Your task to perform on an android device: Open wifi settings Image 0: 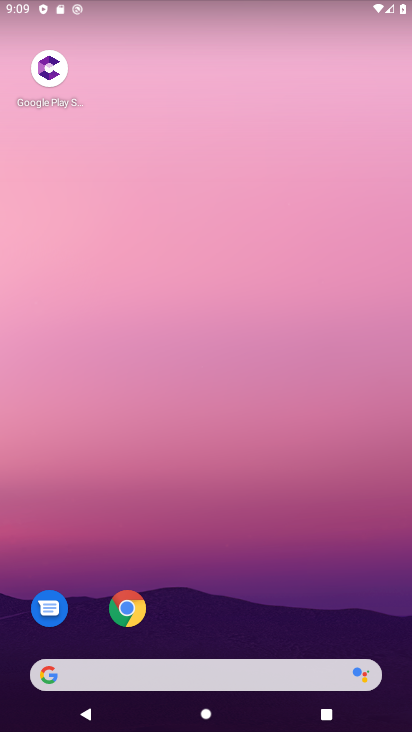
Step 0: drag from (217, 447) to (202, 113)
Your task to perform on an android device: Open wifi settings Image 1: 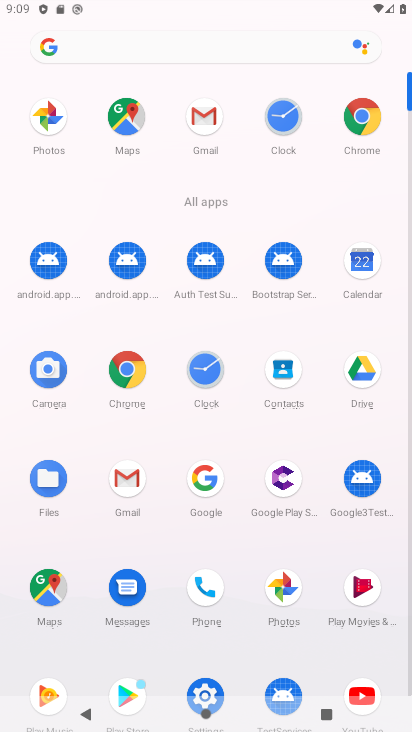
Step 1: click (205, 688)
Your task to perform on an android device: Open wifi settings Image 2: 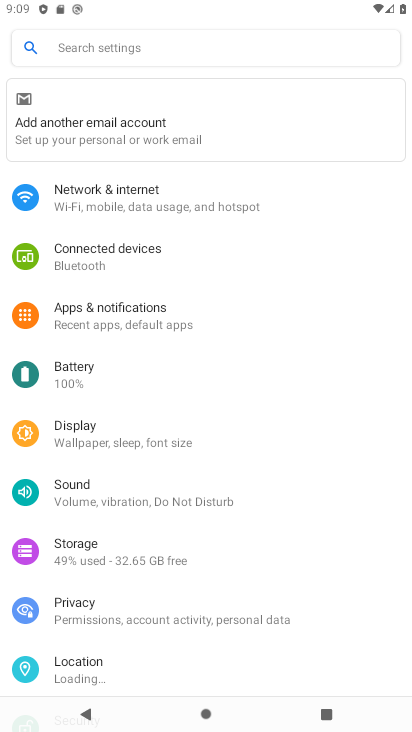
Step 2: click (148, 109)
Your task to perform on an android device: Open wifi settings Image 3: 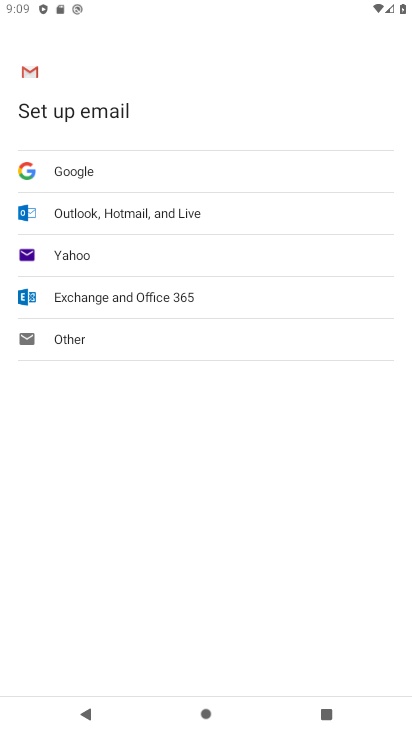
Step 3: press back button
Your task to perform on an android device: Open wifi settings Image 4: 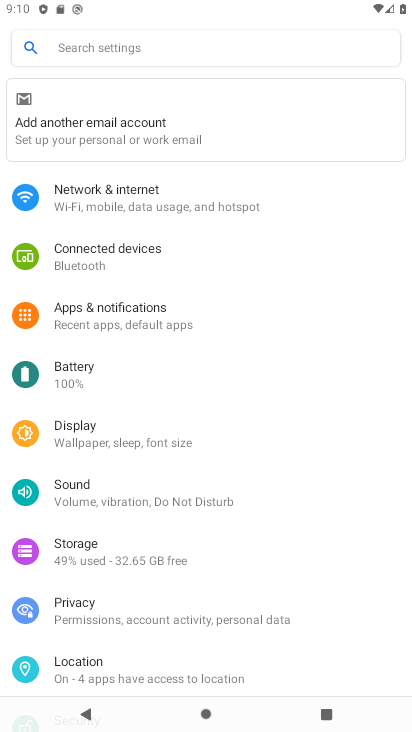
Step 4: click (104, 211)
Your task to perform on an android device: Open wifi settings Image 5: 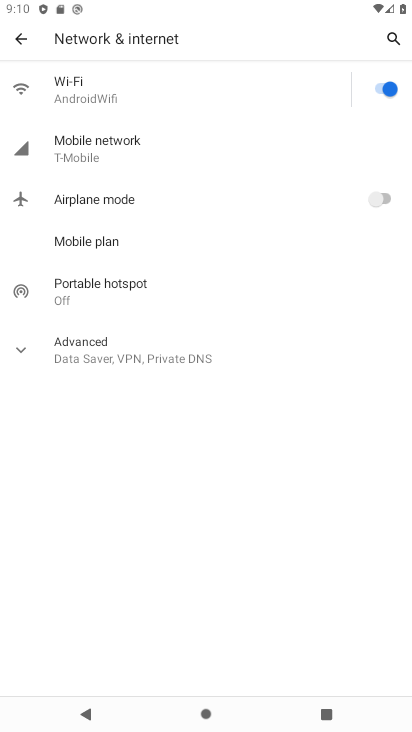
Step 5: click (146, 84)
Your task to perform on an android device: Open wifi settings Image 6: 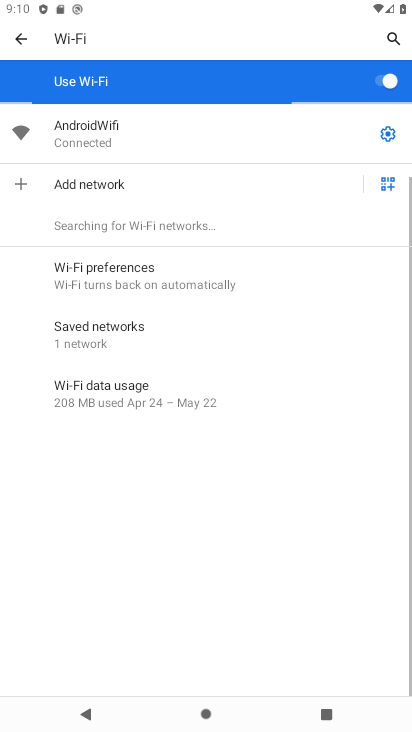
Step 6: click (388, 131)
Your task to perform on an android device: Open wifi settings Image 7: 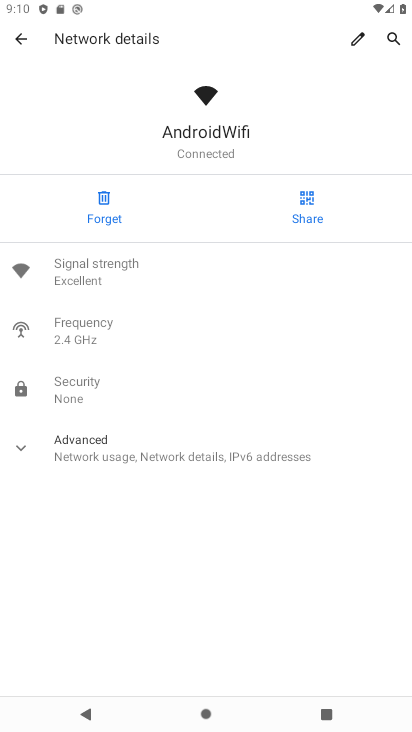
Step 7: task complete